Your task to perform on an android device: open app "Speedtest by Ookla" Image 0: 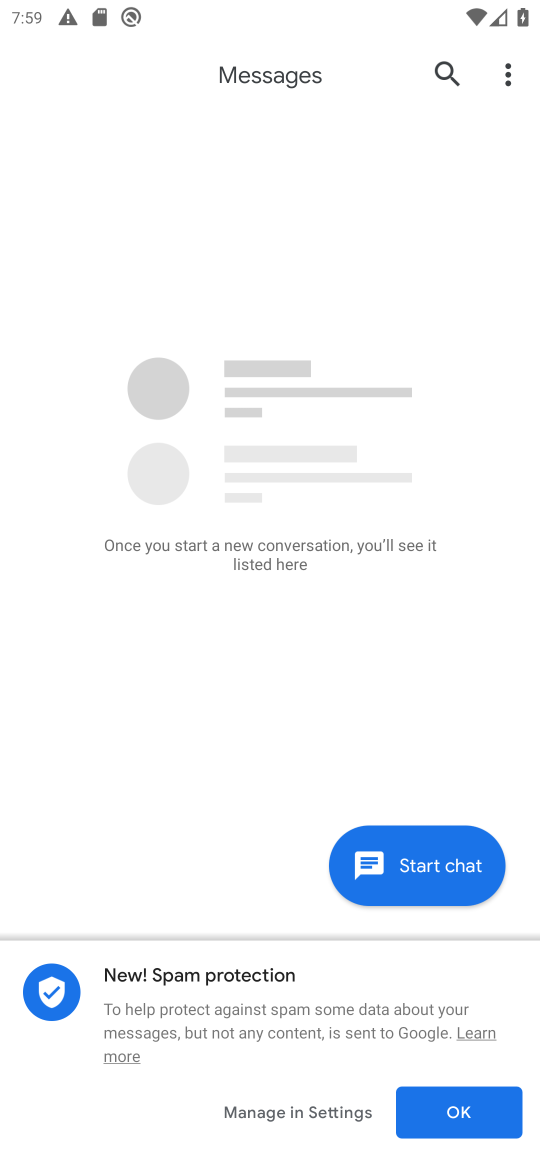
Step 0: press home button
Your task to perform on an android device: open app "Speedtest by Ookla" Image 1: 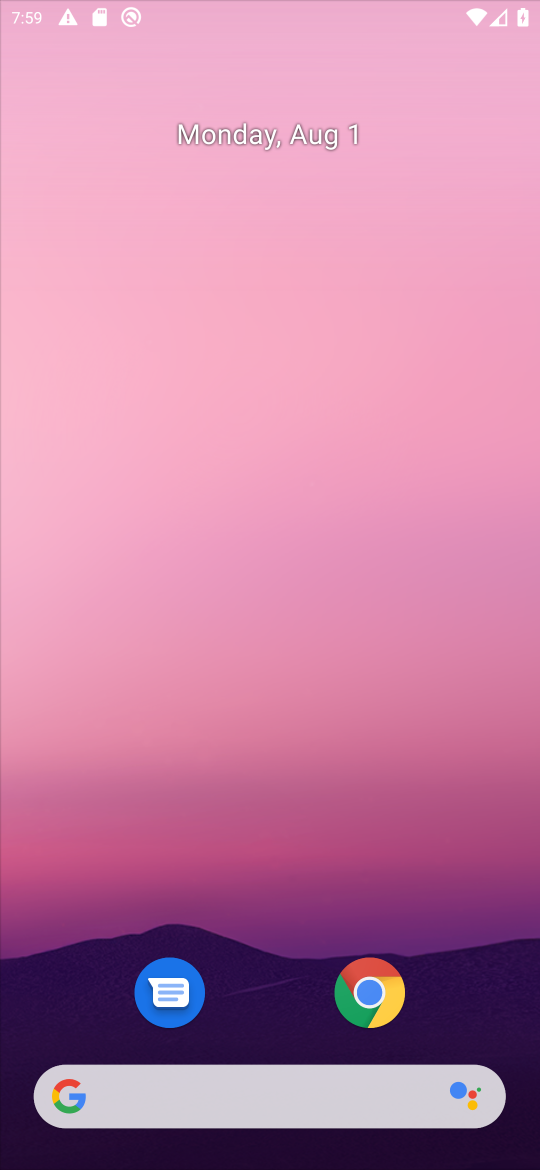
Step 1: drag from (500, 709) to (534, 59)
Your task to perform on an android device: open app "Speedtest by Ookla" Image 2: 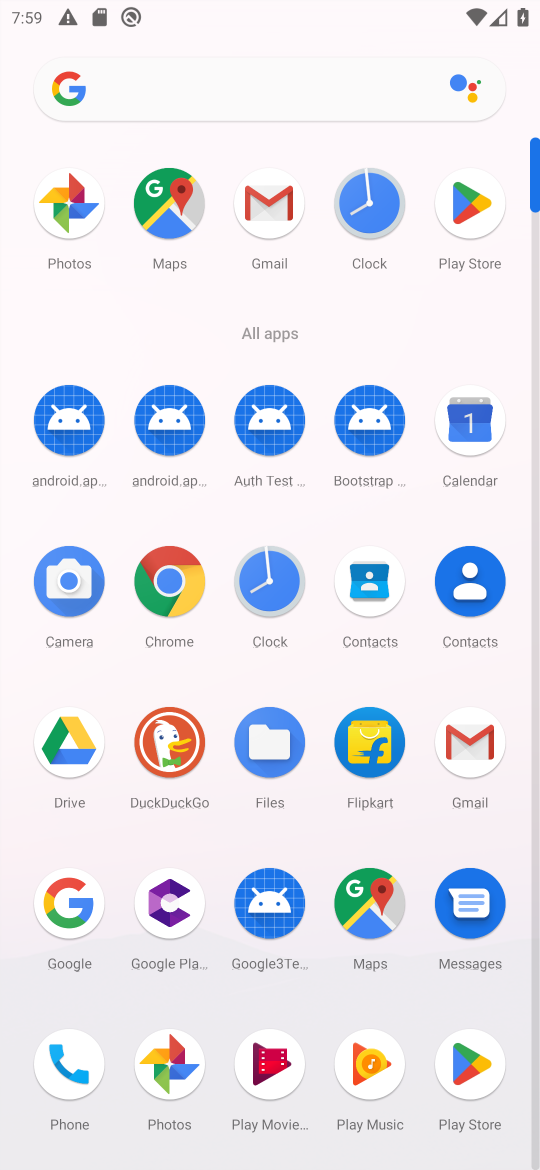
Step 2: click (469, 209)
Your task to perform on an android device: open app "Speedtest by Ookla" Image 3: 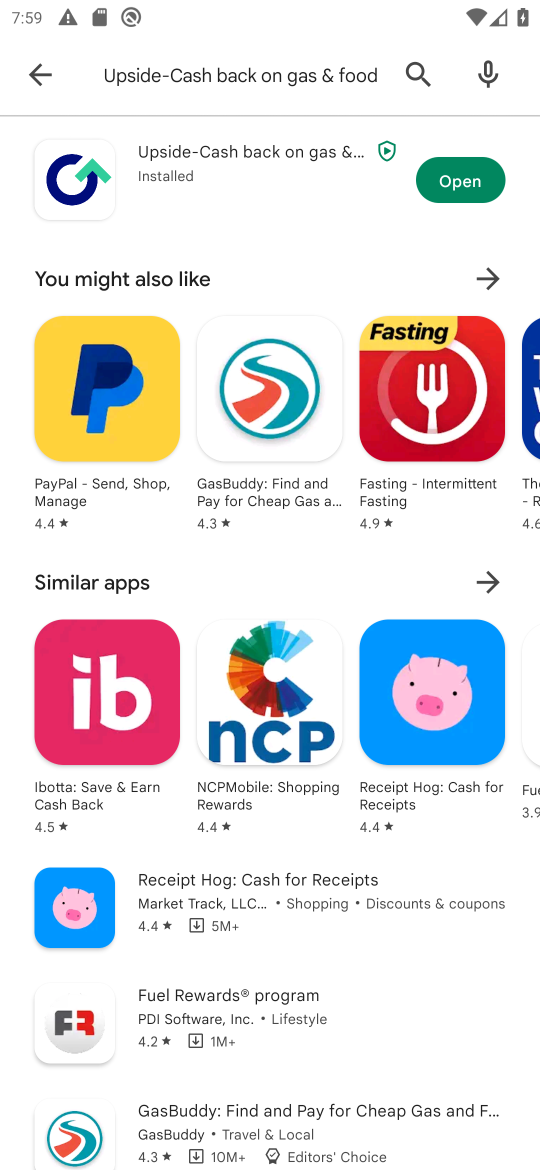
Step 3: click (309, 94)
Your task to perform on an android device: open app "Speedtest by Ookla" Image 4: 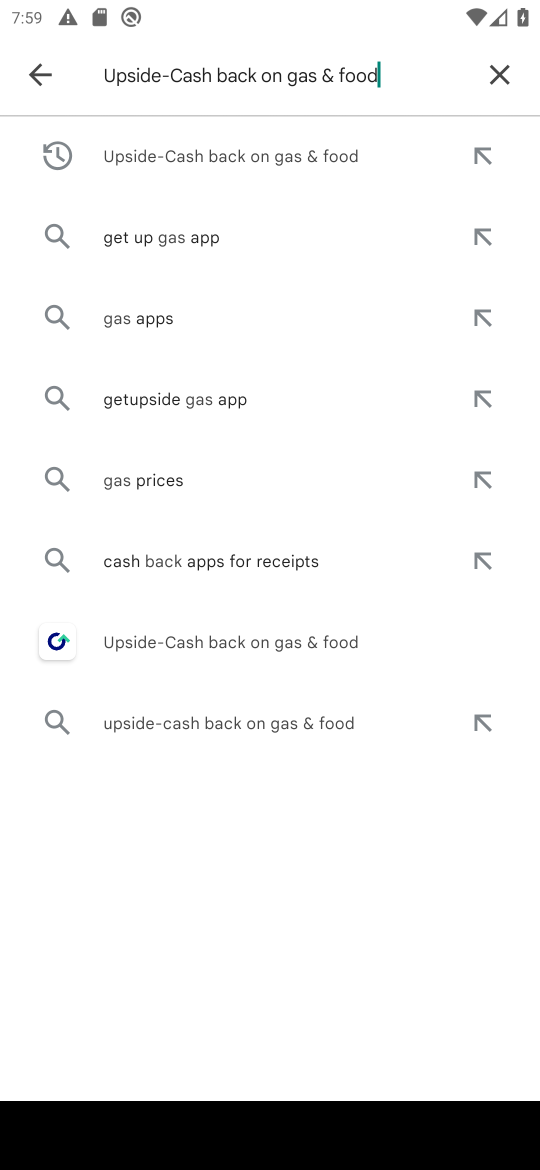
Step 4: click (516, 79)
Your task to perform on an android device: open app "Speedtest by Ookla" Image 5: 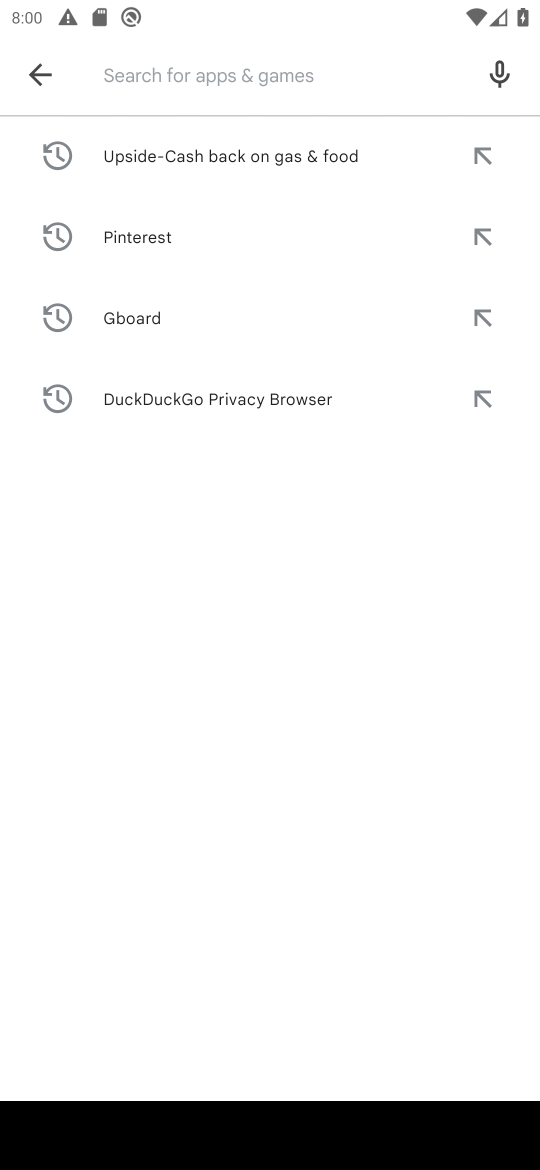
Step 5: type "Speedtest by Ookla"
Your task to perform on an android device: open app "Speedtest by Ookla" Image 6: 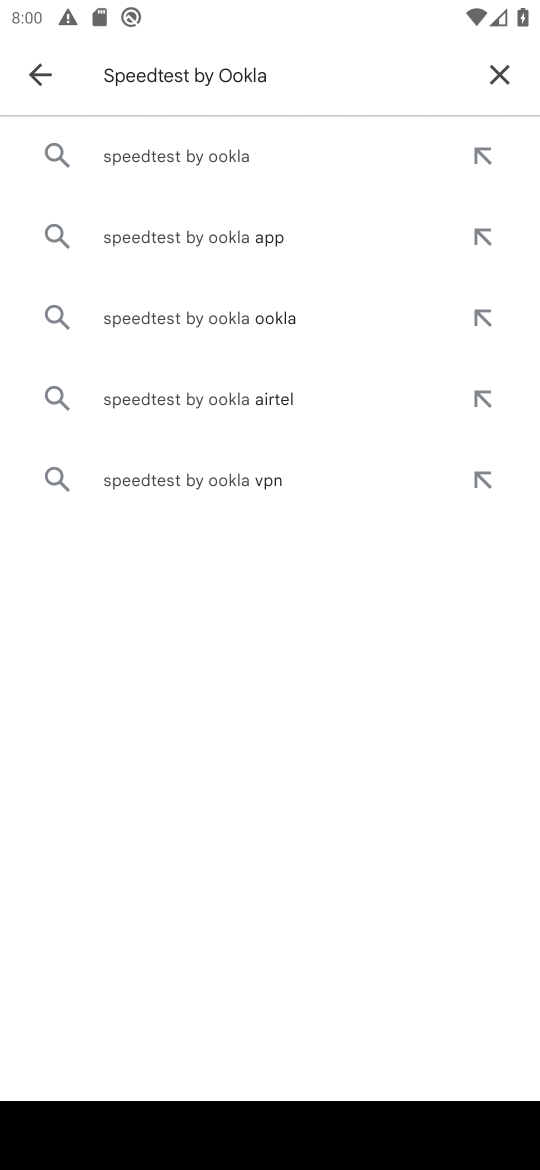
Step 6: press enter
Your task to perform on an android device: open app "Speedtest by Ookla" Image 7: 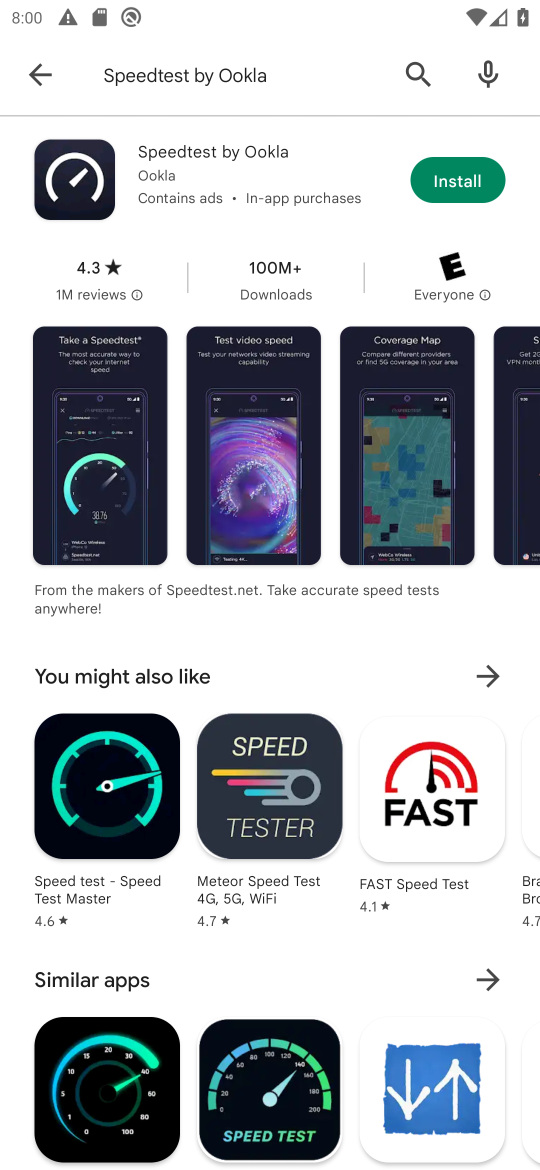
Step 7: task complete